Your task to perform on an android device: Open Chrome and go to settings Image 0: 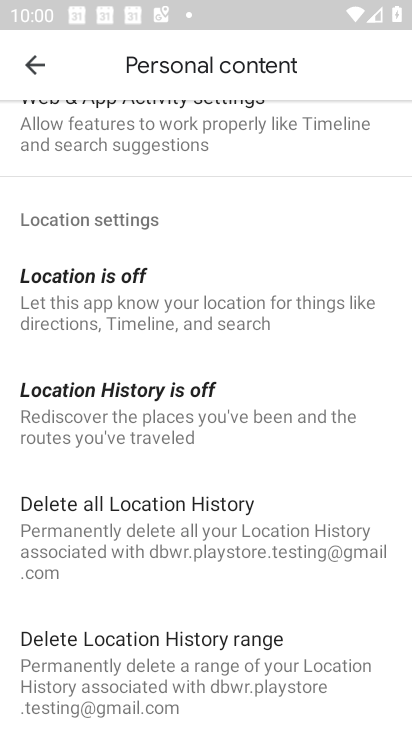
Step 0: press home button
Your task to perform on an android device: Open Chrome and go to settings Image 1: 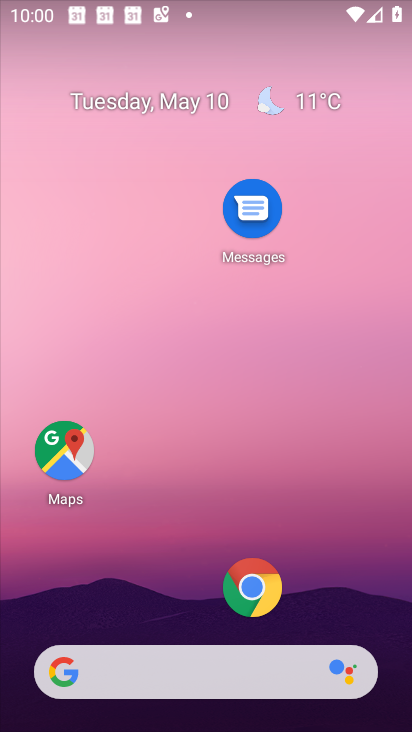
Step 1: click (265, 591)
Your task to perform on an android device: Open Chrome and go to settings Image 2: 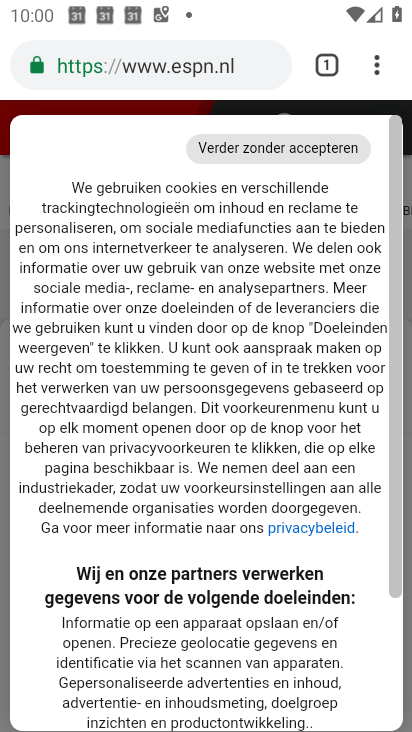
Step 2: click (379, 78)
Your task to perform on an android device: Open Chrome and go to settings Image 3: 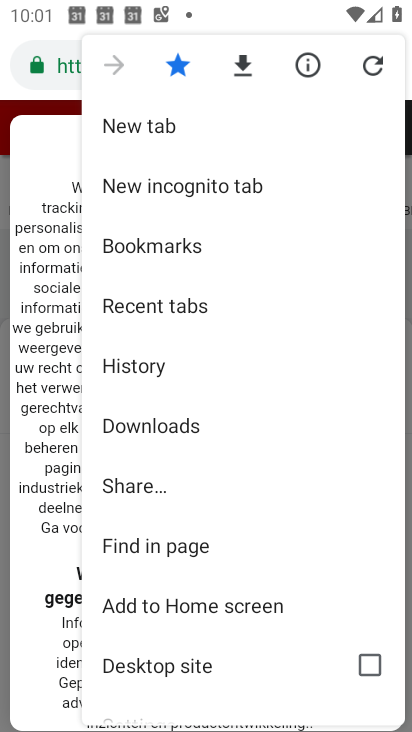
Step 3: drag from (179, 548) to (272, 129)
Your task to perform on an android device: Open Chrome and go to settings Image 4: 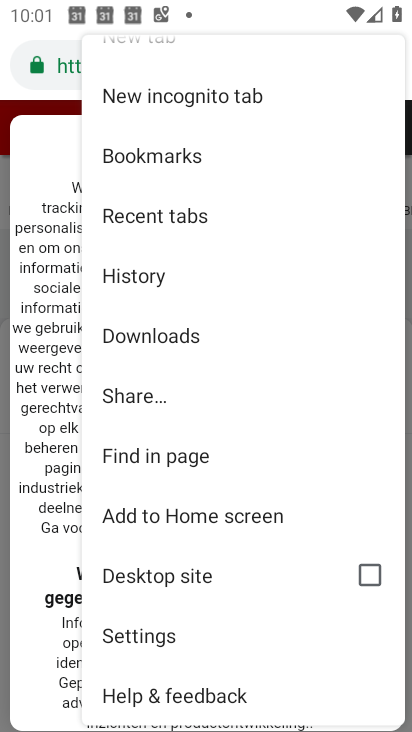
Step 4: click (178, 639)
Your task to perform on an android device: Open Chrome and go to settings Image 5: 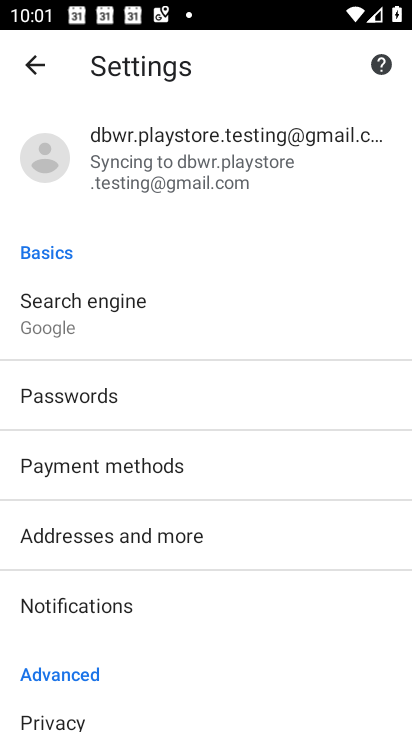
Step 5: task complete